Your task to perform on an android device: Show me popular videos on Youtube Image 0: 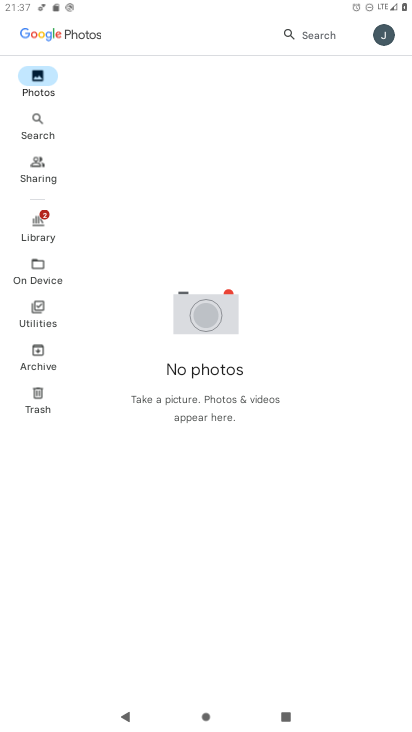
Step 0: press home button
Your task to perform on an android device: Show me popular videos on Youtube Image 1: 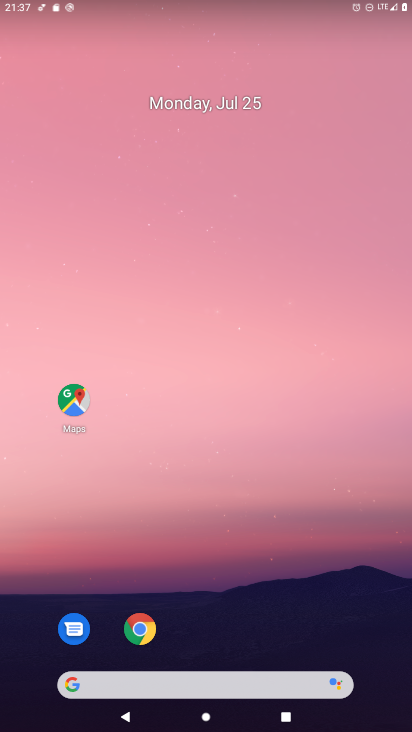
Step 1: drag from (170, 694) to (230, 171)
Your task to perform on an android device: Show me popular videos on Youtube Image 2: 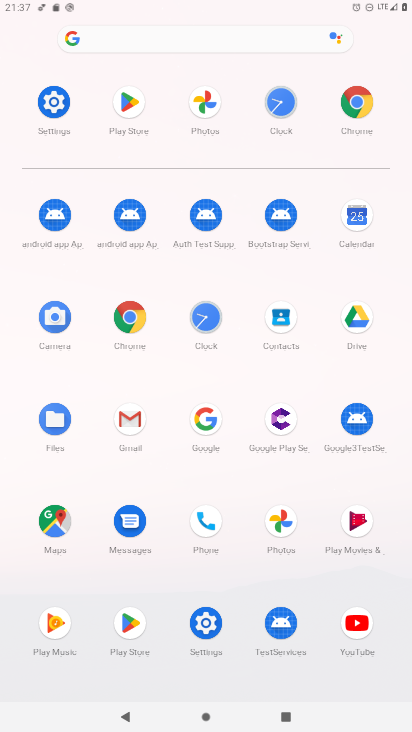
Step 2: click (356, 625)
Your task to perform on an android device: Show me popular videos on Youtube Image 3: 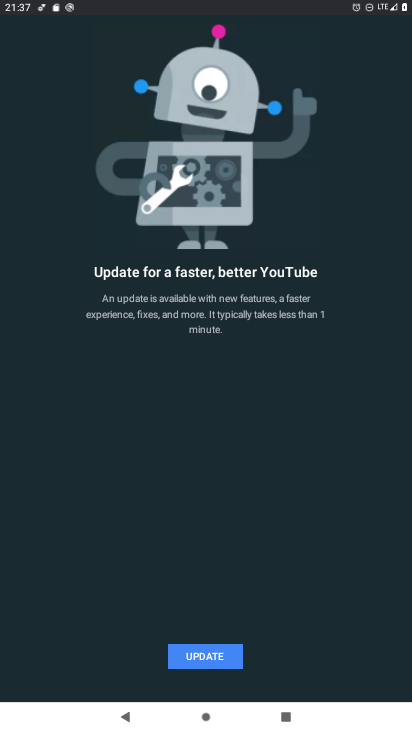
Step 3: click (214, 656)
Your task to perform on an android device: Show me popular videos on Youtube Image 4: 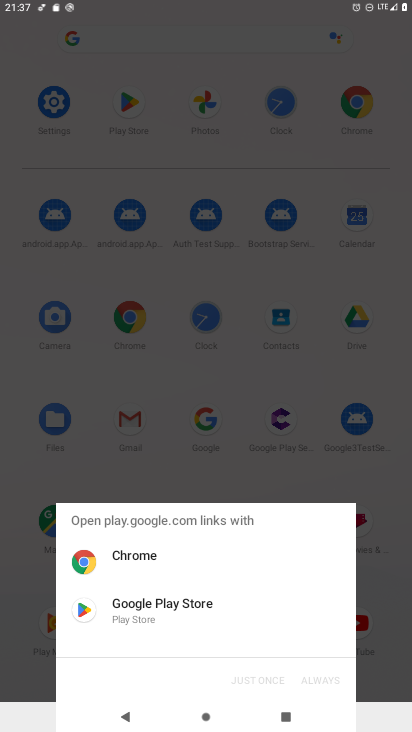
Step 4: click (178, 607)
Your task to perform on an android device: Show me popular videos on Youtube Image 5: 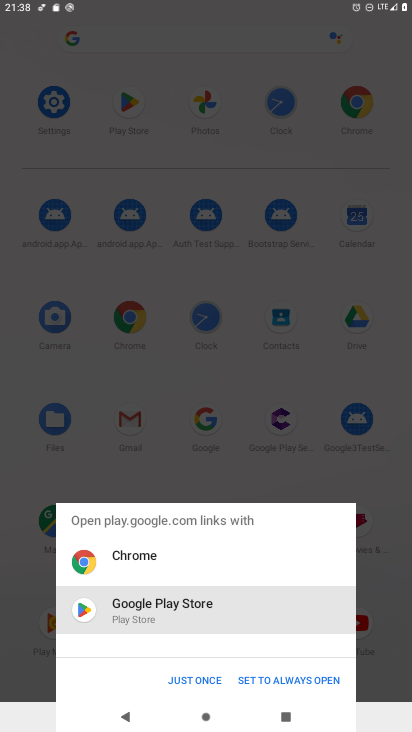
Step 5: click (185, 676)
Your task to perform on an android device: Show me popular videos on Youtube Image 6: 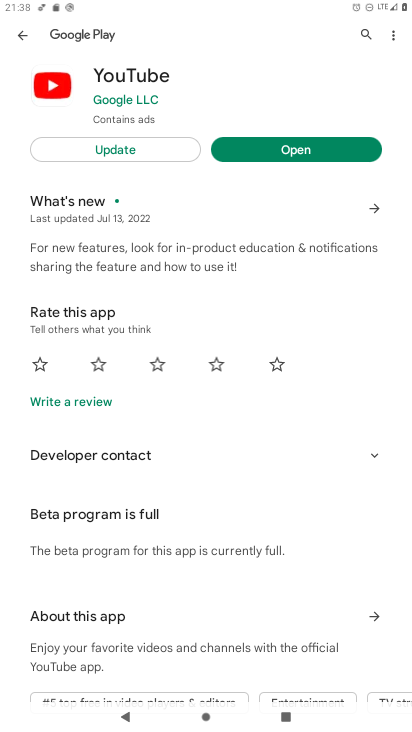
Step 6: click (128, 154)
Your task to perform on an android device: Show me popular videos on Youtube Image 7: 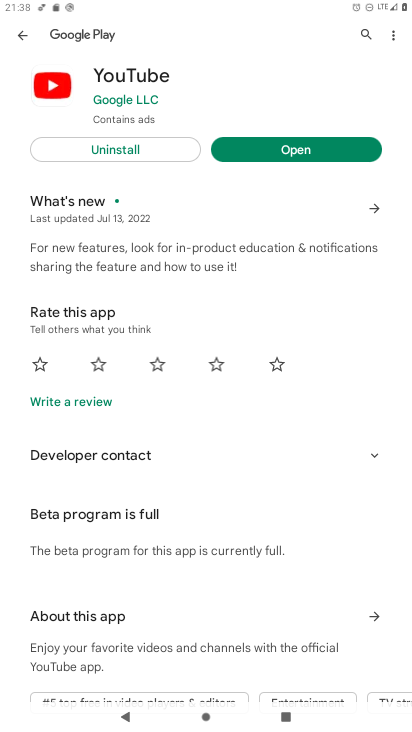
Step 7: click (291, 147)
Your task to perform on an android device: Show me popular videos on Youtube Image 8: 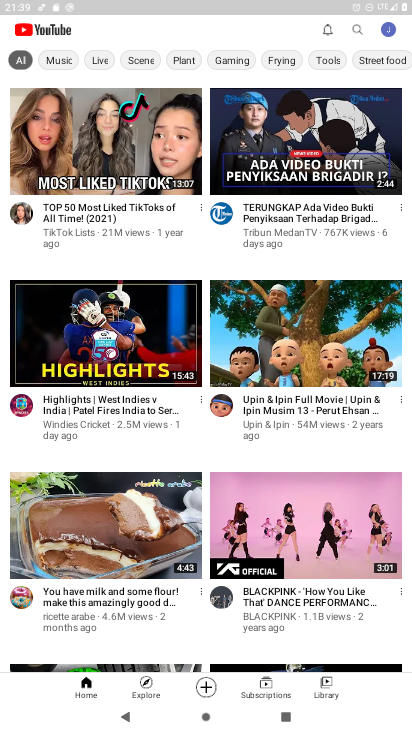
Step 8: click (355, 30)
Your task to perform on an android device: Show me popular videos on Youtube Image 9: 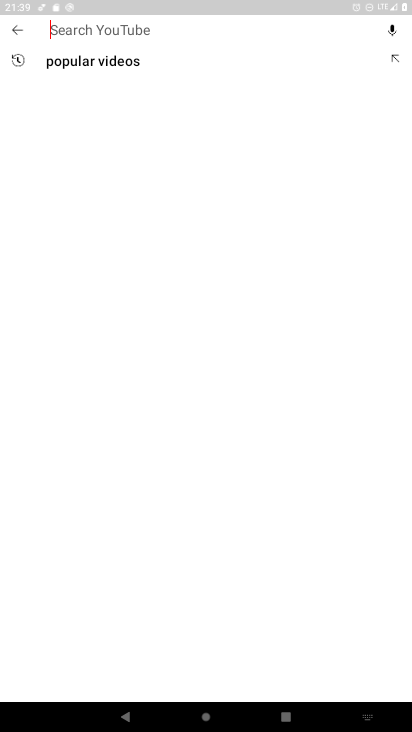
Step 9: click (109, 70)
Your task to perform on an android device: Show me popular videos on Youtube Image 10: 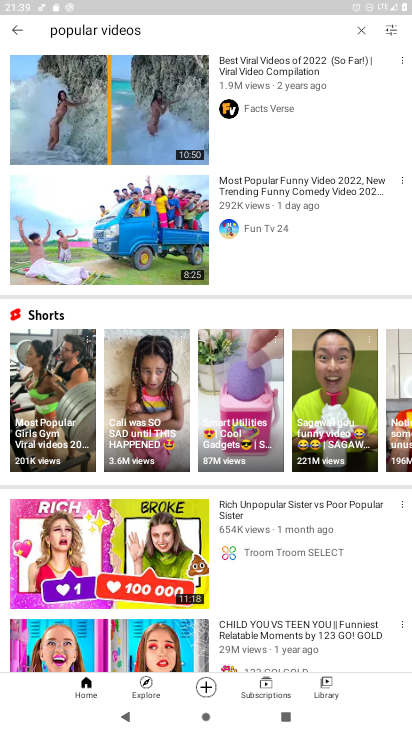
Step 10: click (124, 89)
Your task to perform on an android device: Show me popular videos on Youtube Image 11: 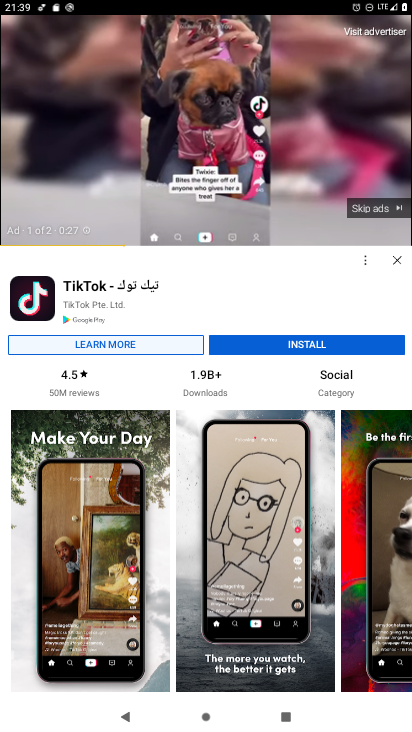
Step 11: click (374, 214)
Your task to perform on an android device: Show me popular videos on Youtube Image 12: 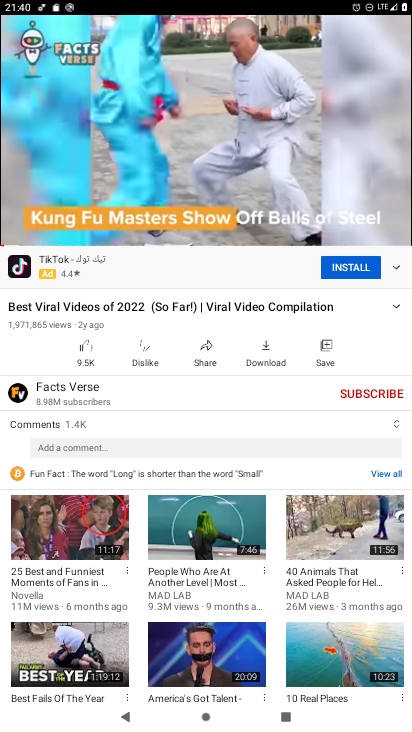
Step 12: click (216, 138)
Your task to perform on an android device: Show me popular videos on Youtube Image 13: 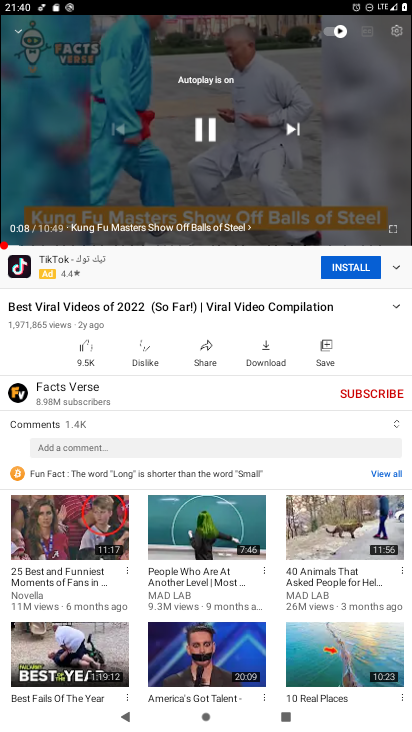
Step 13: click (216, 138)
Your task to perform on an android device: Show me popular videos on Youtube Image 14: 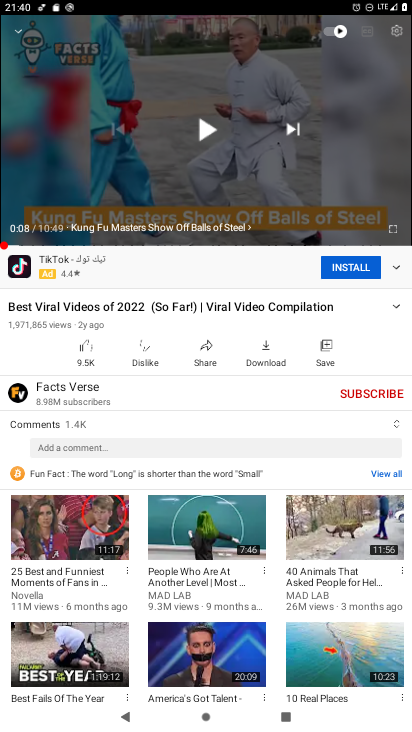
Step 14: task complete